Your task to perform on an android device: What's the news in Brazil? Image 0: 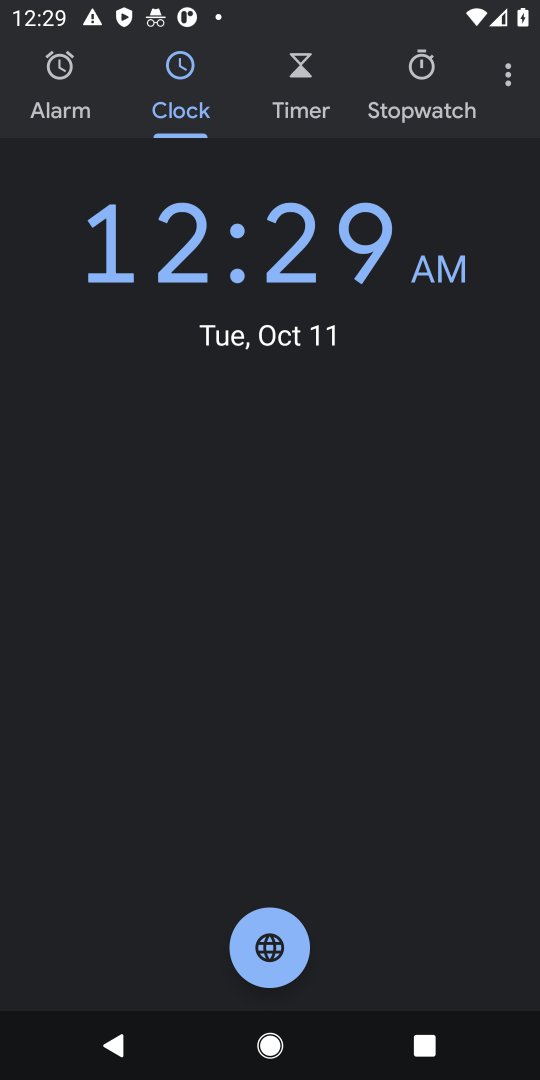
Step 0: press home button
Your task to perform on an android device: What's the news in Brazil? Image 1: 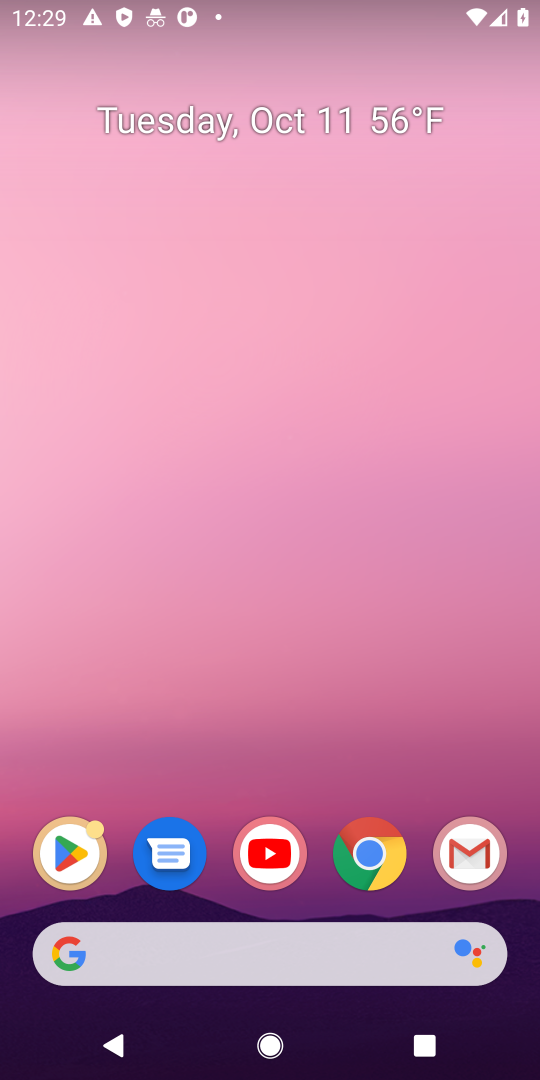
Step 1: drag from (370, 776) to (380, 29)
Your task to perform on an android device: What's the news in Brazil? Image 2: 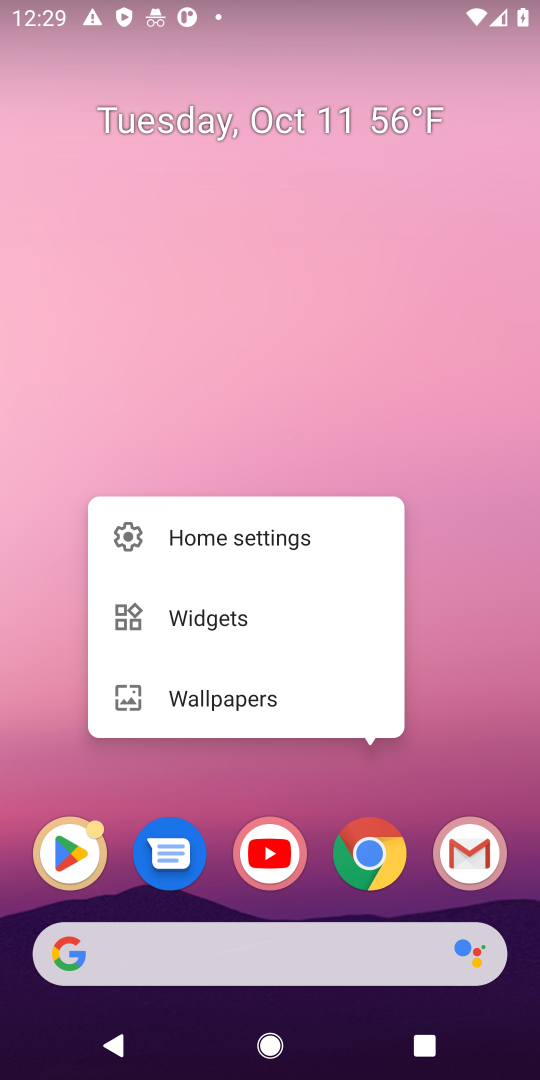
Step 2: click (447, 658)
Your task to perform on an android device: What's the news in Brazil? Image 3: 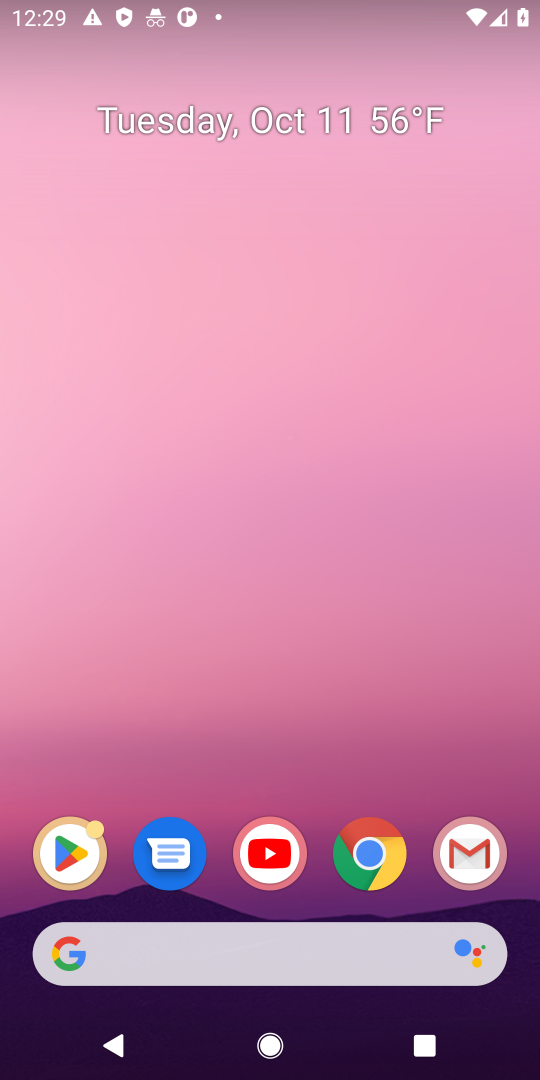
Step 3: drag from (424, 814) to (359, 29)
Your task to perform on an android device: What's the news in Brazil? Image 4: 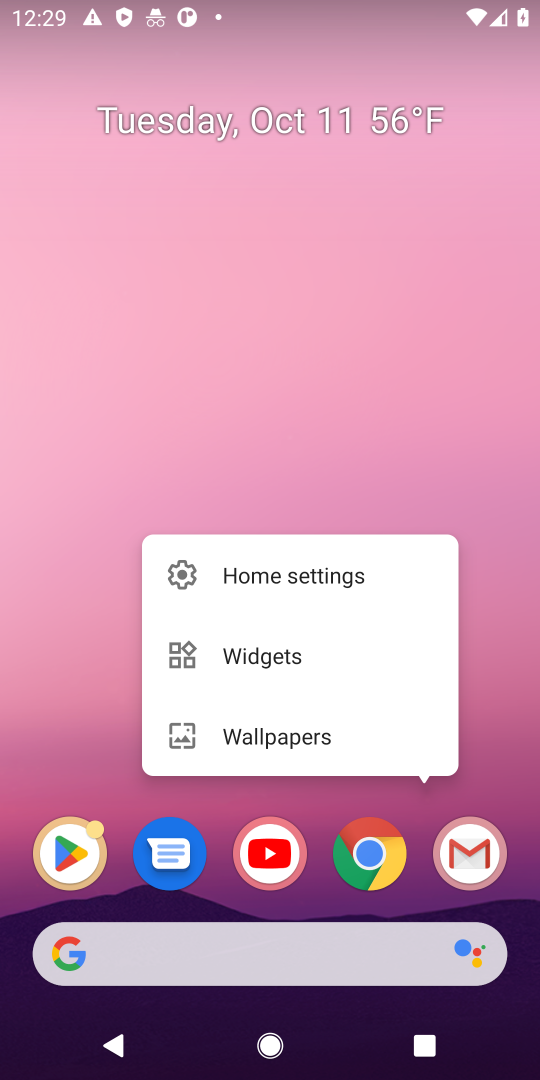
Step 4: click (451, 360)
Your task to perform on an android device: What's the news in Brazil? Image 5: 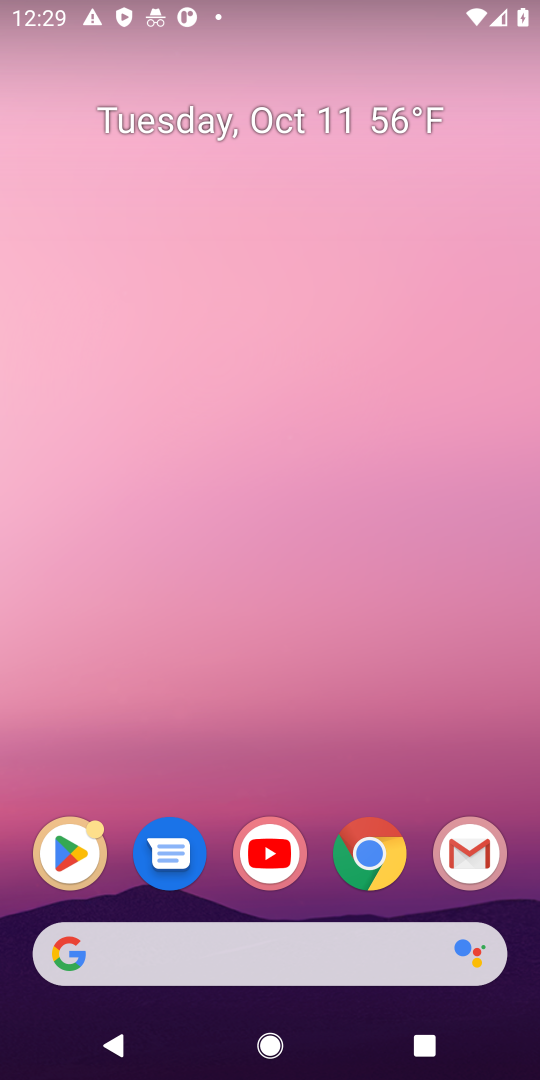
Step 5: drag from (418, 805) to (425, 64)
Your task to perform on an android device: What's the news in Brazil? Image 6: 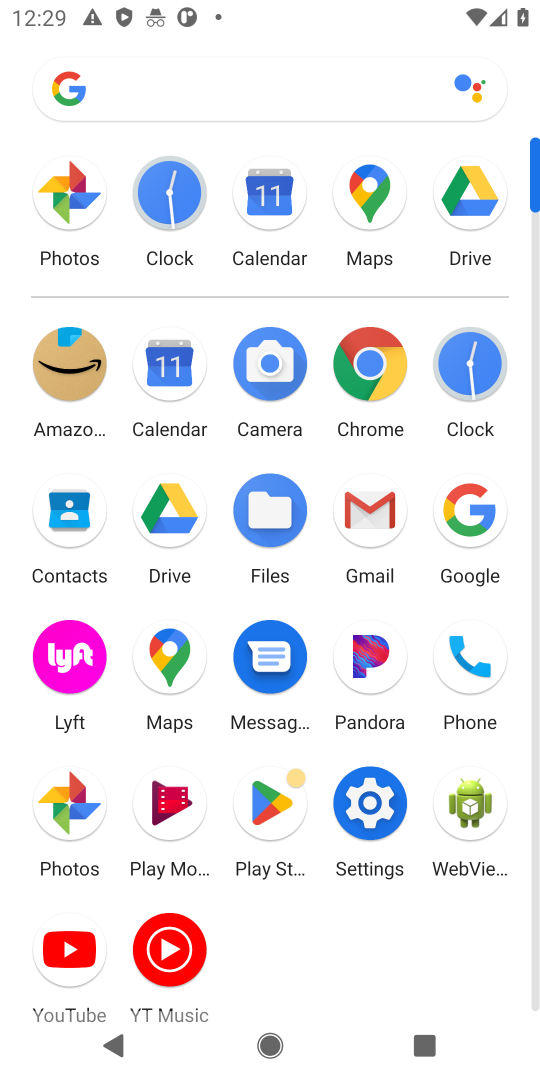
Step 6: click (370, 362)
Your task to perform on an android device: What's the news in Brazil? Image 7: 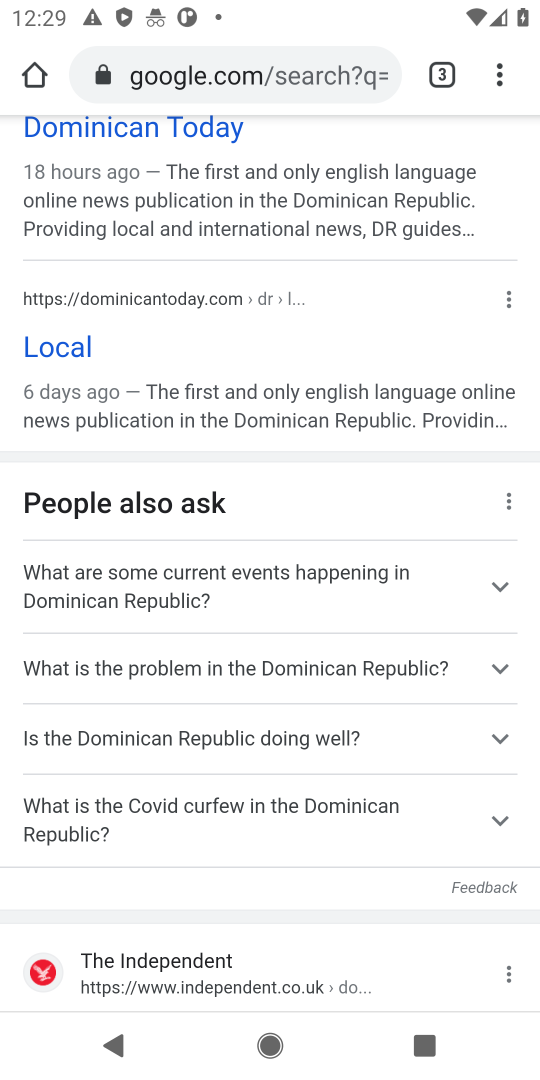
Step 7: click (239, 69)
Your task to perform on an android device: What's the news in Brazil? Image 8: 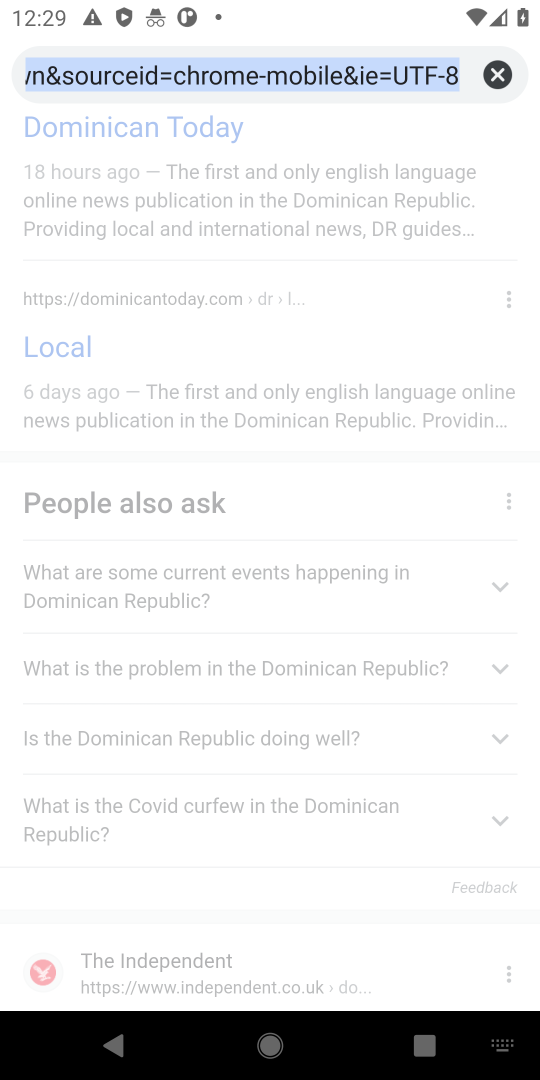
Step 8: click (490, 60)
Your task to perform on an android device: What's the news in Brazil? Image 9: 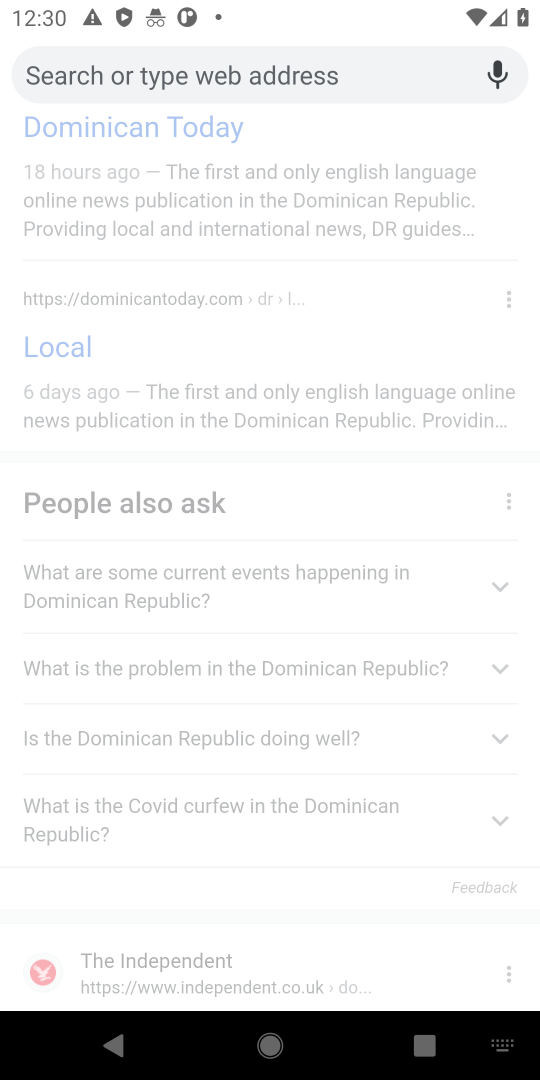
Step 9: type "What's the news in Brazil?"
Your task to perform on an android device: What's the news in Brazil? Image 10: 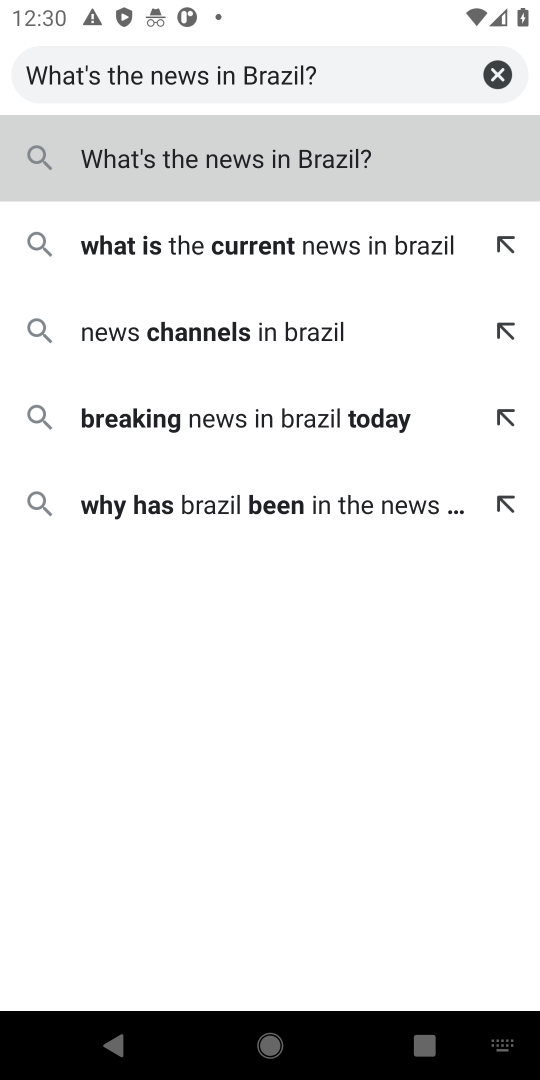
Step 10: click (275, 152)
Your task to perform on an android device: What's the news in Brazil? Image 11: 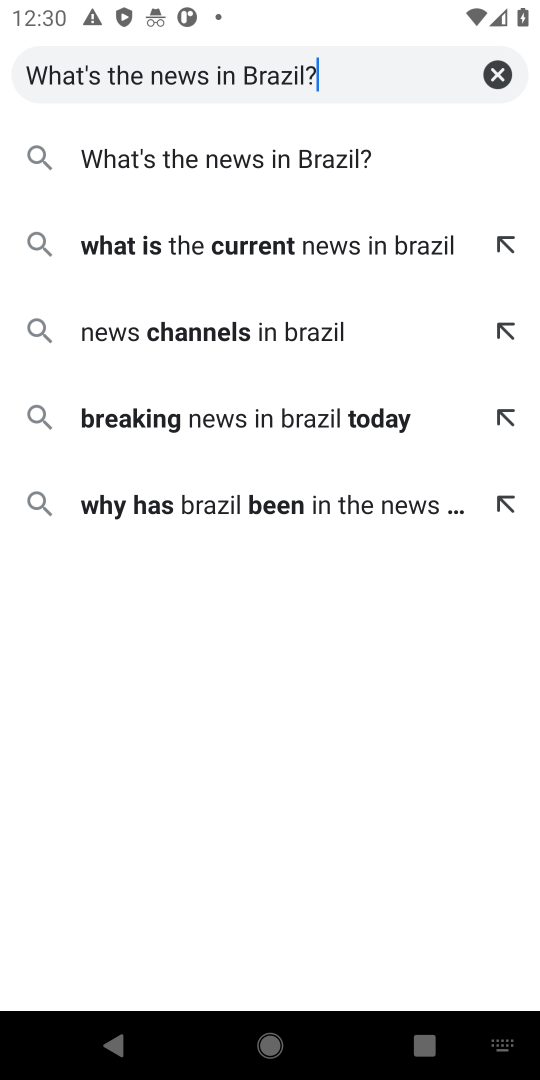
Step 11: click (269, 167)
Your task to perform on an android device: What's the news in Brazil? Image 12: 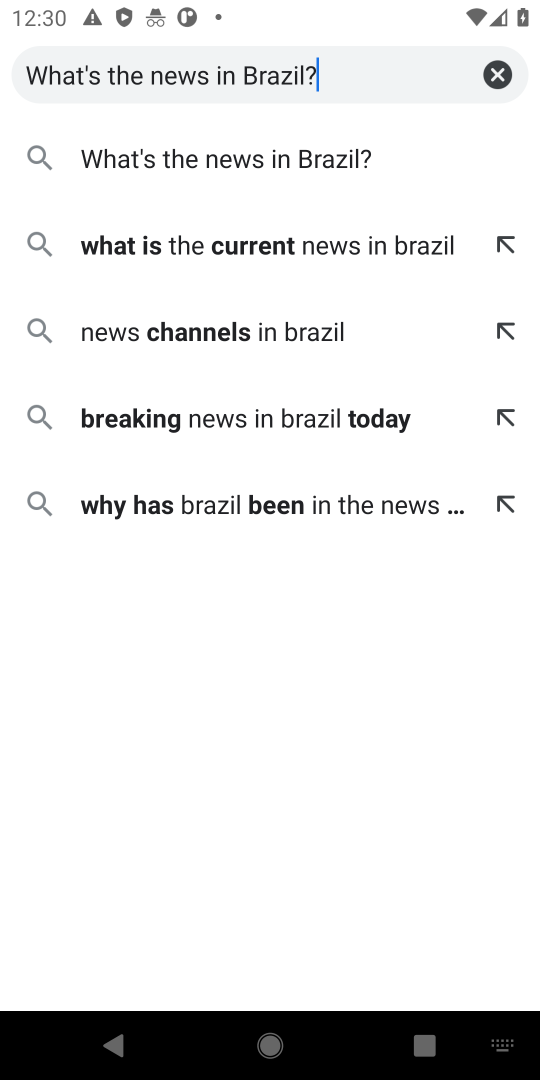
Step 12: click (209, 152)
Your task to perform on an android device: What's the news in Brazil? Image 13: 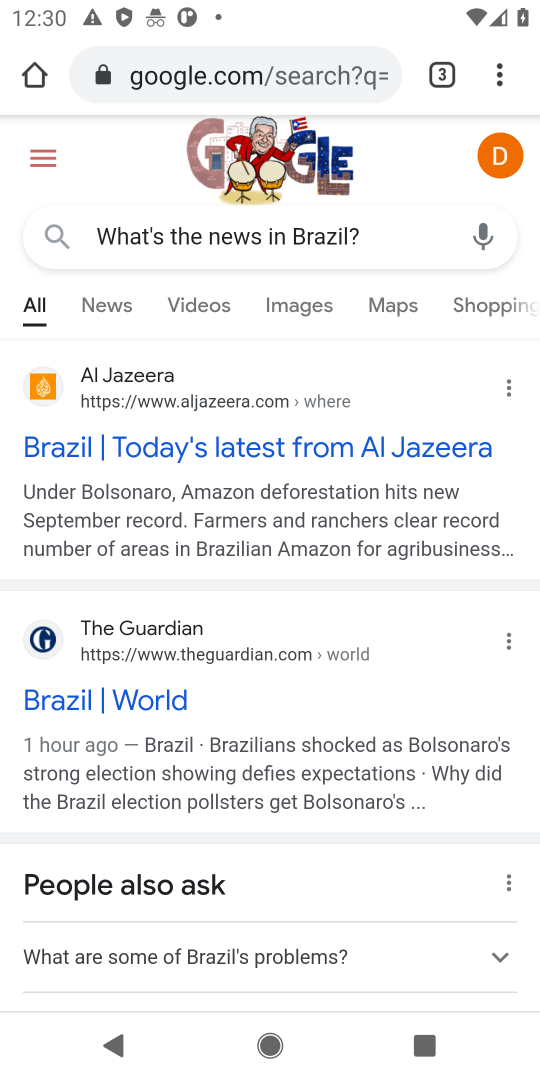
Step 13: task complete